Your task to perform on an android device: See recent photos Image 0: 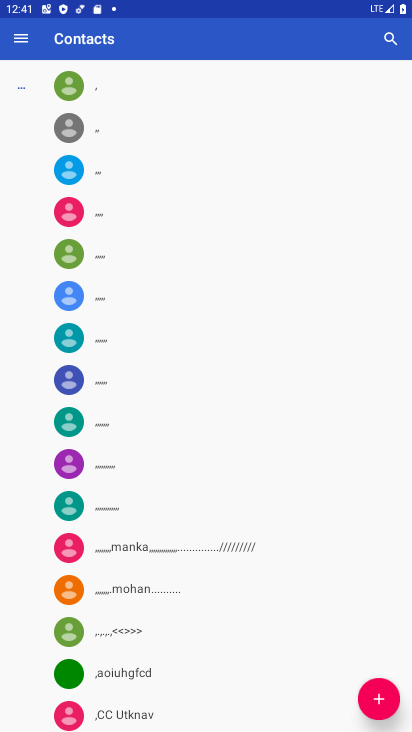
Step 0: press home button
Your task to perform on an android device: See recent photos Image 1: 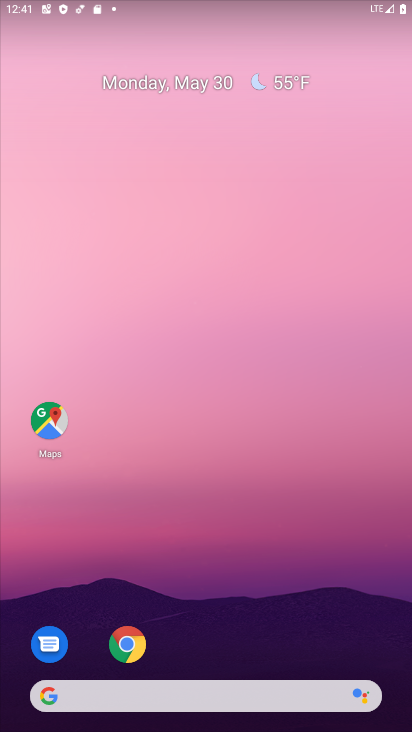
Step 1: drag from (302, 633) to (341, 51)
Your task to perform on an android device: See recent photos Image 2: 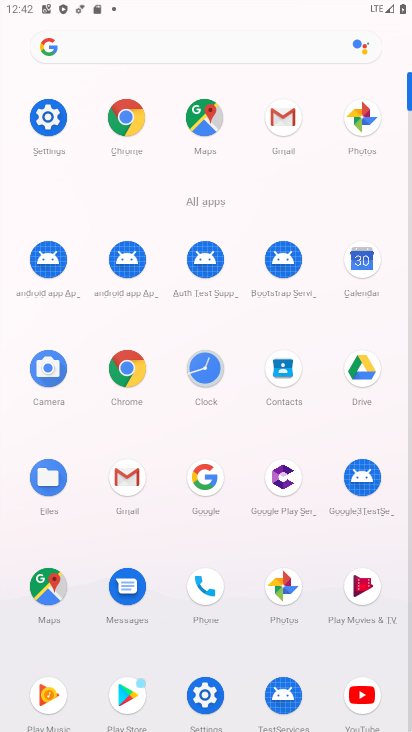
Step 2: click (270, 578)
Your task to perform on an android device: See recent photos Image 3: 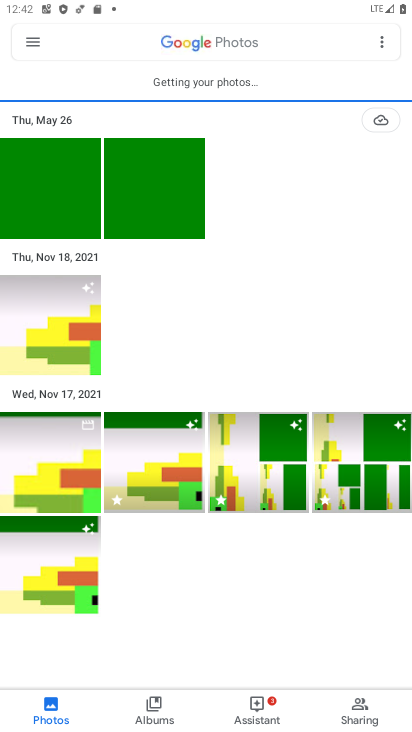
Step 3: task complete